Your task to perform on an android device: stop showing notifications on the lock screen Image 0: 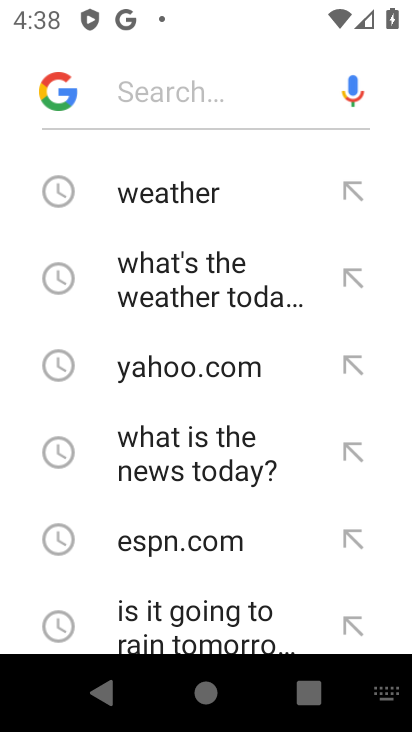
Step 0: press home button
Your task to perform on an android device: stop showing notifications on the lock screen Image 1: 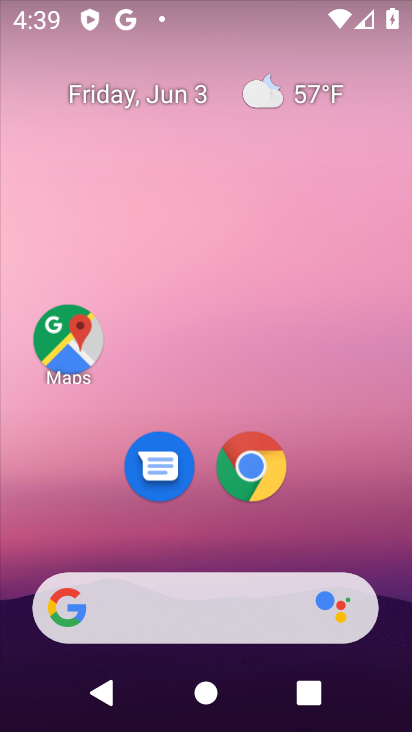
Step 1: drag from (327, 551) to (230, 53)
Your task to perform on an android device: stop showing notifications on the lock screen Image 2: 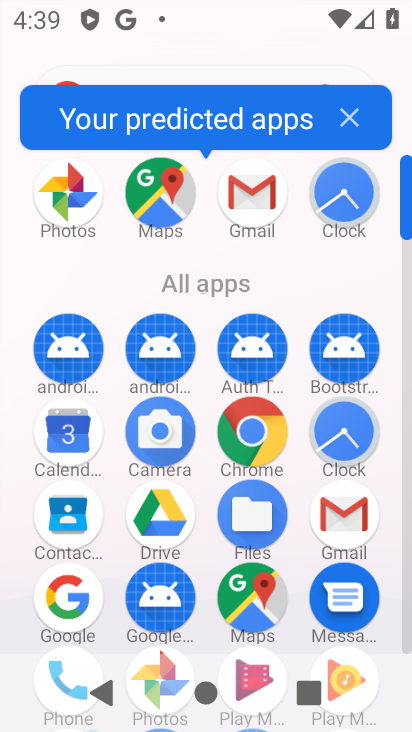
Step 2: click (405, 637)
Your task to perform on an android device: stop showing notifications on the lock screen Image 3: 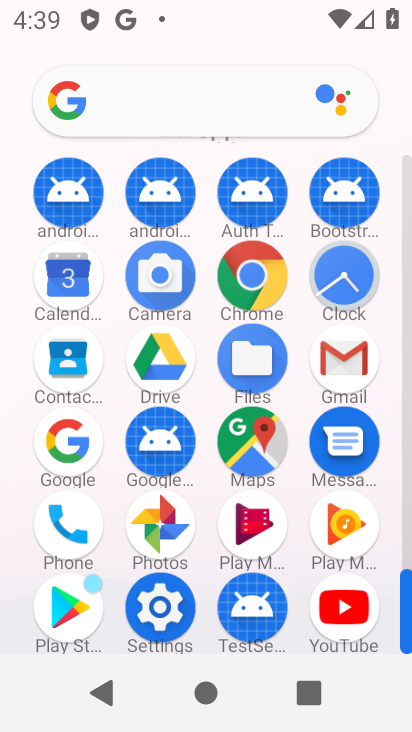
Step 3: click (169, 584)
Your task to perform on an android device: stop showing notifications on the lock screen Image 4: 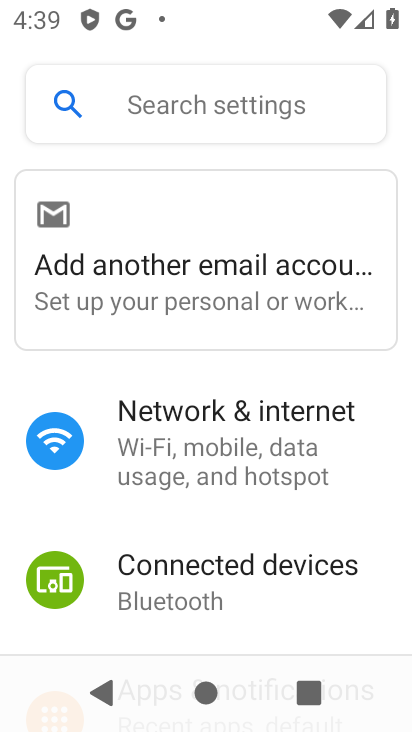
Step 4: drag from (207, 614) to (201, 324)
Your task to perform on an android device: stop showing notifications on the lock screen Image 5: 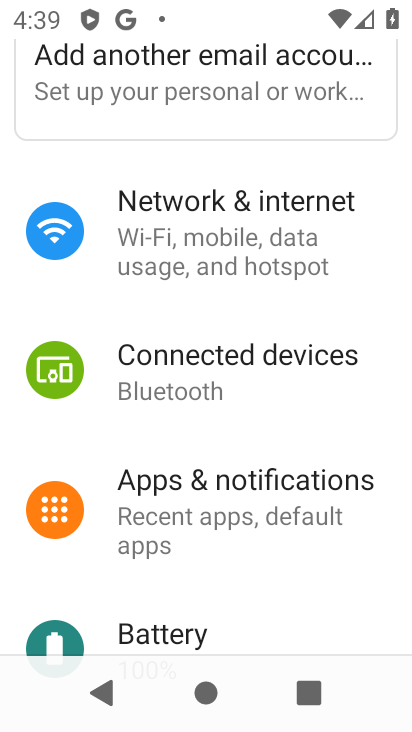
Step 5: click (244, 529)
Your task to perform on an android device: stop showing notifications on the lock screen Image 6: 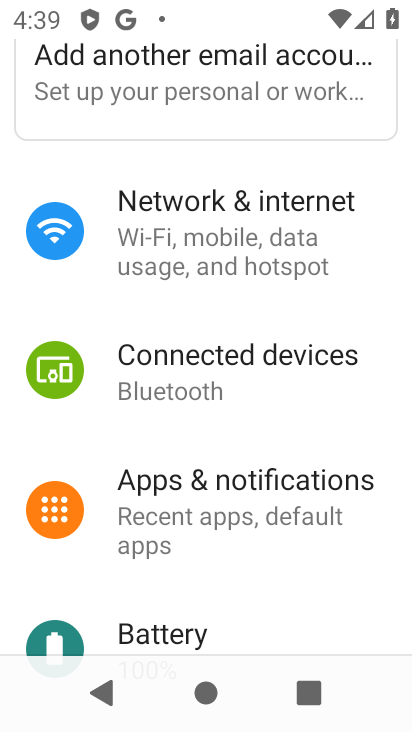
Step 6: click (207, 518)
Your task to perform on an android device: stop showing notifications on the lock screen Image 7: 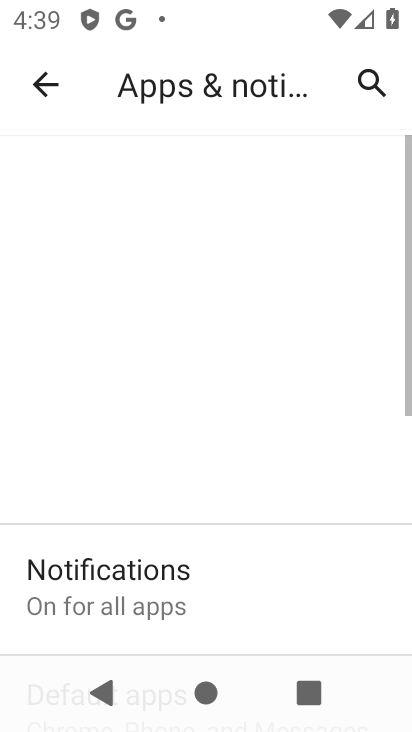
Step 7: drag from (236, 577) to (246, 238)
Your task to perform on an android device: stop showing notifications on the lock screen Image 8: 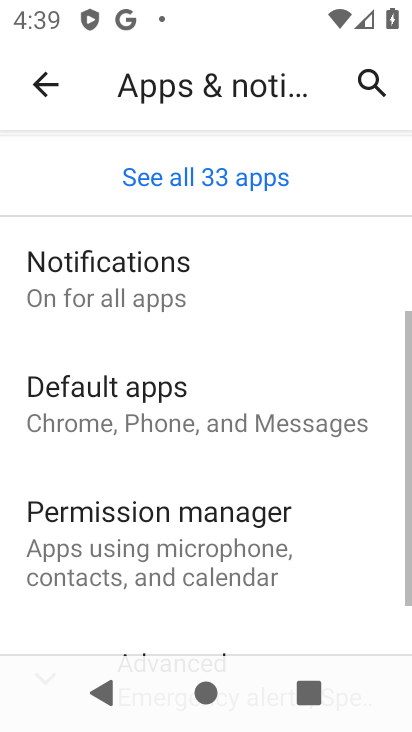
Step 8: click (224, 281)
Your task to perform on an android device: stop showing notifications on the lock screen Image 9: 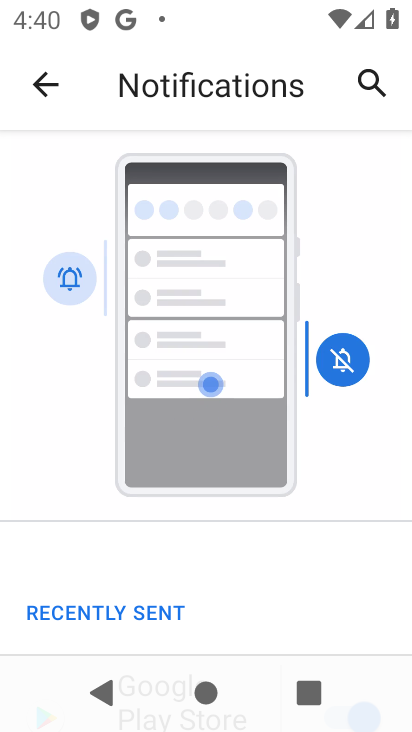
Step 9: drag from (261, 565) to (225, 157)
Your task to perform on an android device: stop showing notifications on the lock screen Image 10: 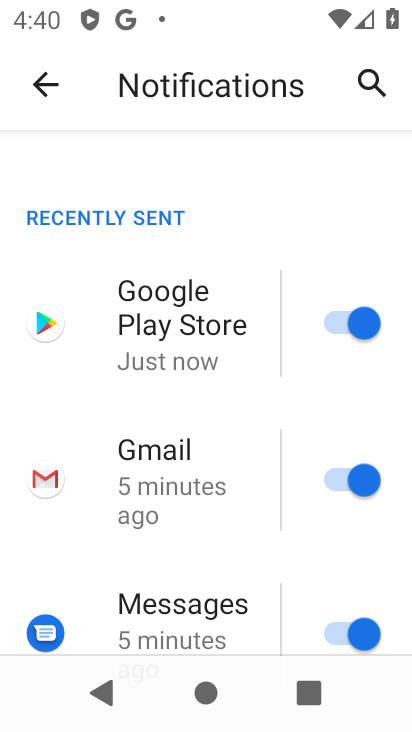
Step 10: drag from (243, 576) to (210, 164)
Your task to perform on an android device: stop showing notifications on the lock screen Image 11: 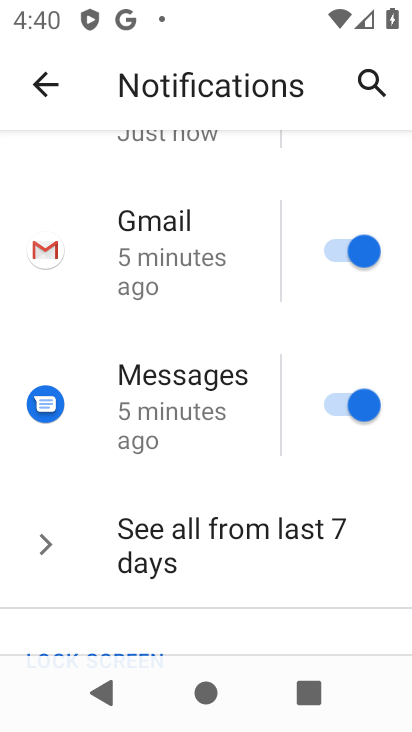
Step 11: drag from (286, 565) to (253, 323)
Your task to perform on an android device: stop showing notifications on the lock screen Image 12: 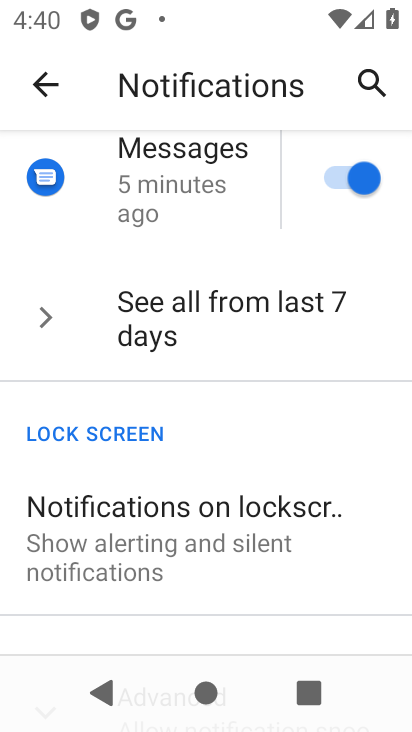
Step 12: click (267, 550)
Your task to perform on an android device: stop showing notifications on the lock screen Image 13: 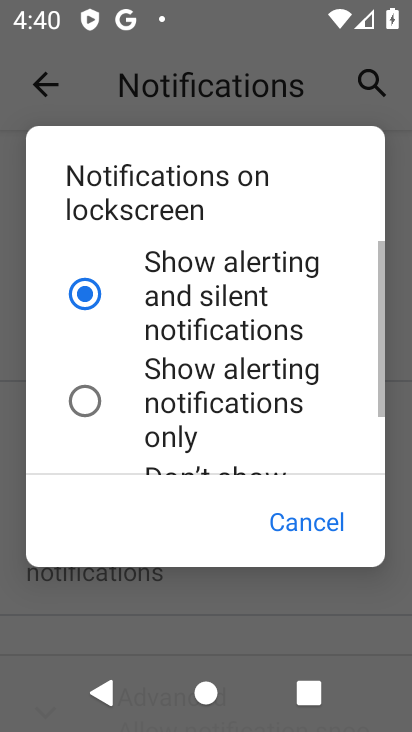
Step 13: drag from (206, 448) to (207, 249)
Your task to perform on an android device: stop showing notifications on the lock screen Image 14: 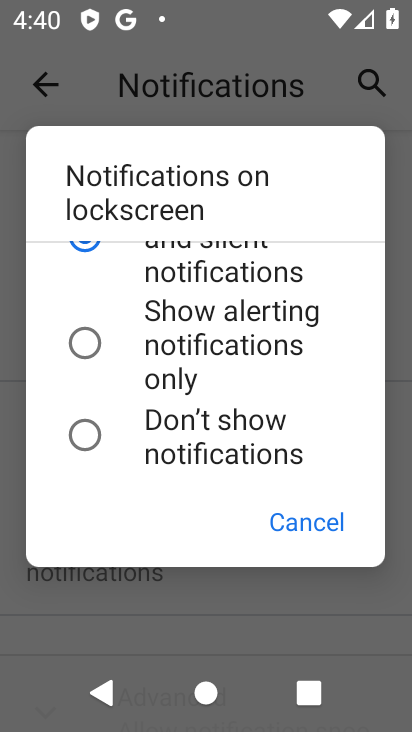
Step 14: click (214, 403)
Your task to perform on an android device: stop showing notifications on the lock screen Image 15: 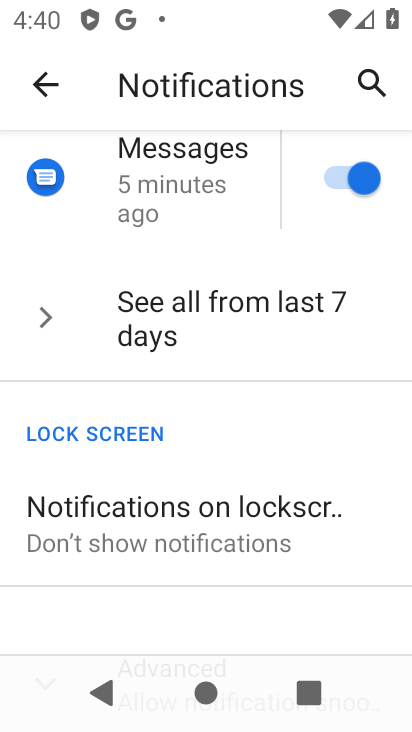
Step 15: task complete